Your task to perform on an android device: See recent photos Image 0: 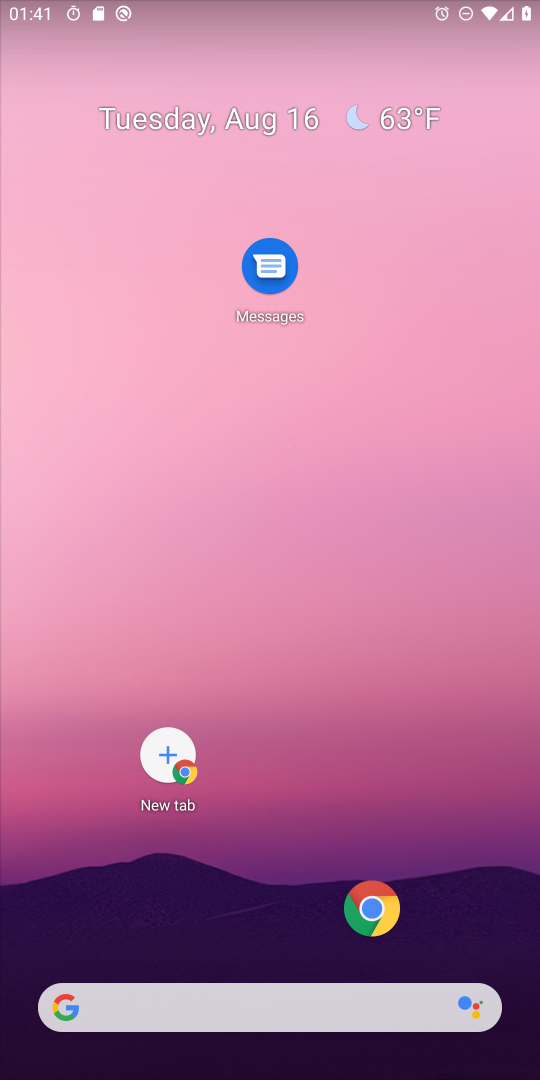
Step 0: drag from (234, 945) to (154, 194)
Your task to perform on an android device: See recent photos Image 1: 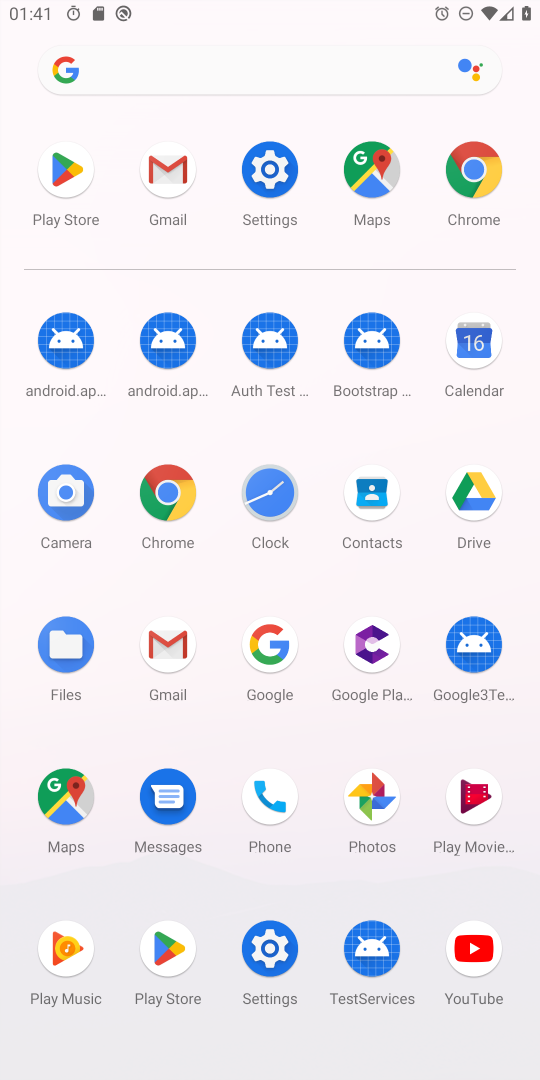
Step 1: click (361, 811)
Your task to perform on an android device: See recent photos Image 2: 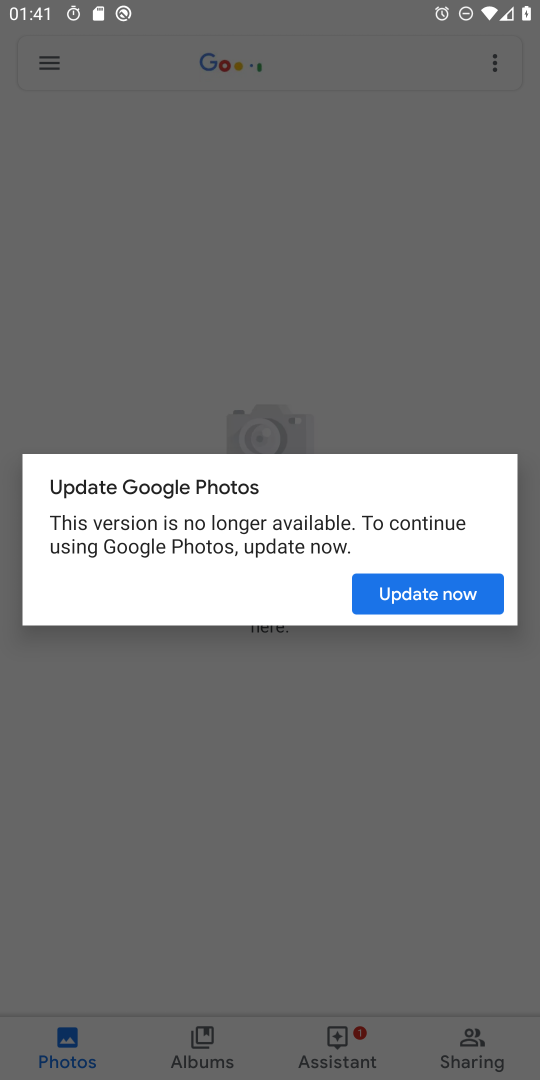
Step 2: click (405, 603)
Your task to perform on an android device: See recent photos Image 3: 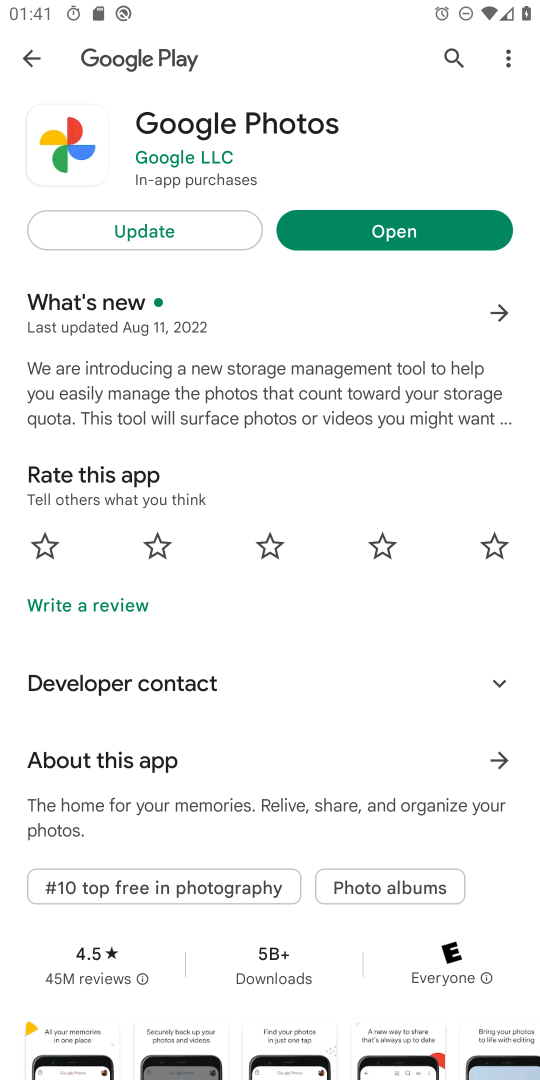
Step 3: click (435, 219)
Your task to perform on an android device: See recent photos Image 4: 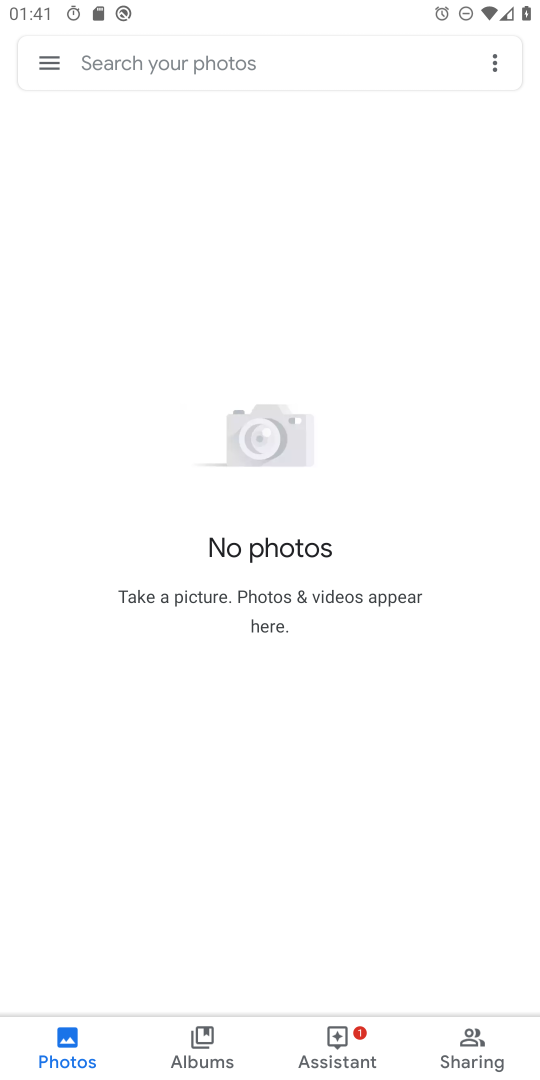
Step 4: task complete